Your task to perform on an android device: check data usage Image 0: 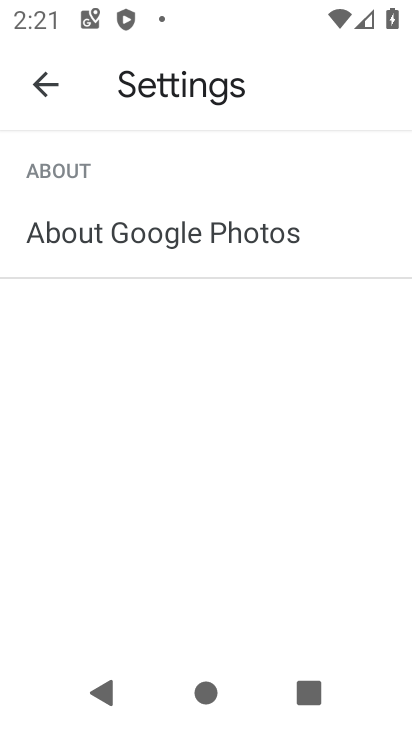
Step 0: task complete